Your task to perform on an android device: uninstall "Facebook Messenger" Image 0: 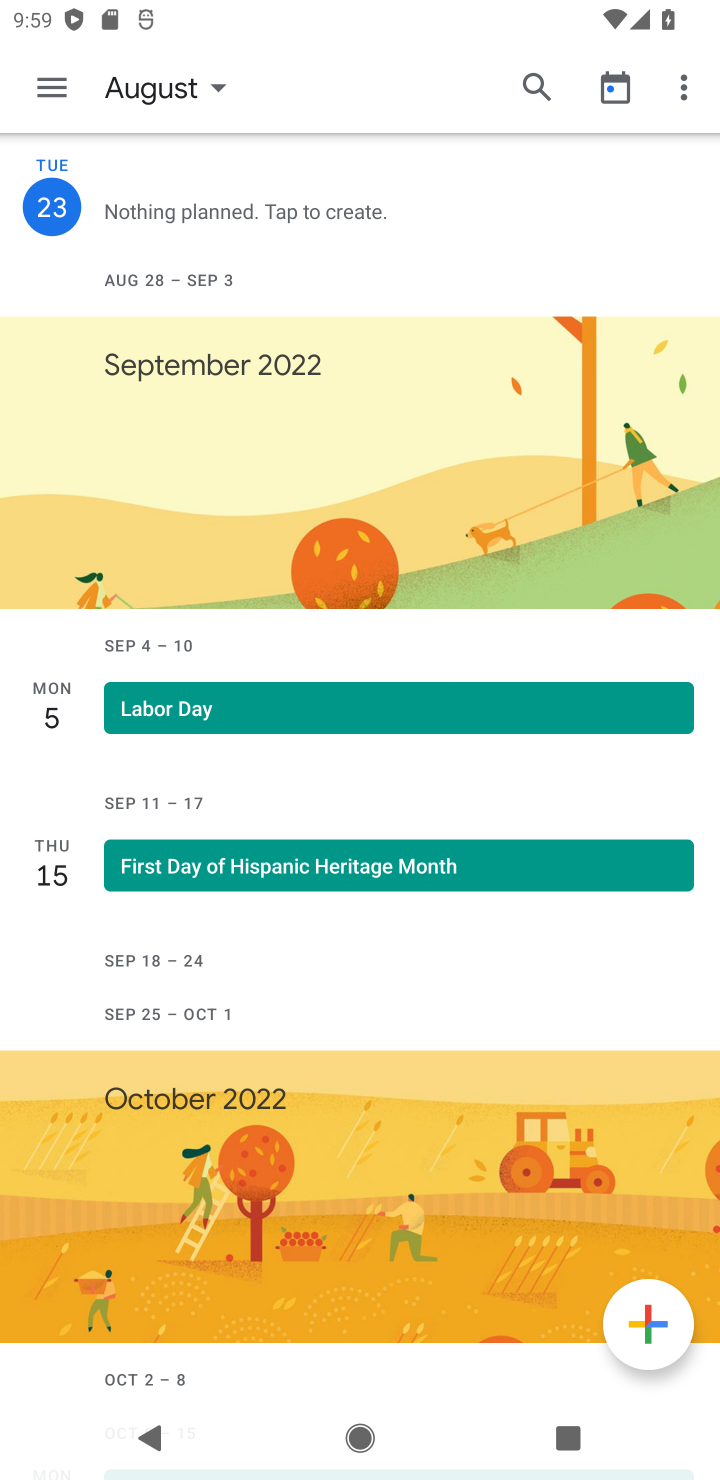
Step 0: task complete